Your task to perform on an android device: Go to location settings Image 0: 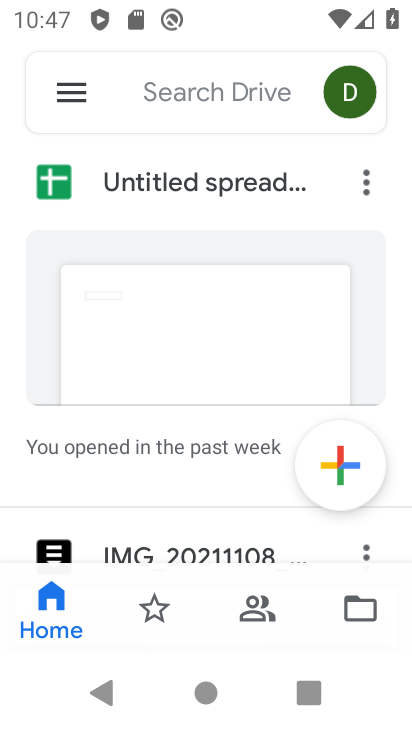
Step 0: press home button
Your task to perform on an android device: Go to location settings Image 1: 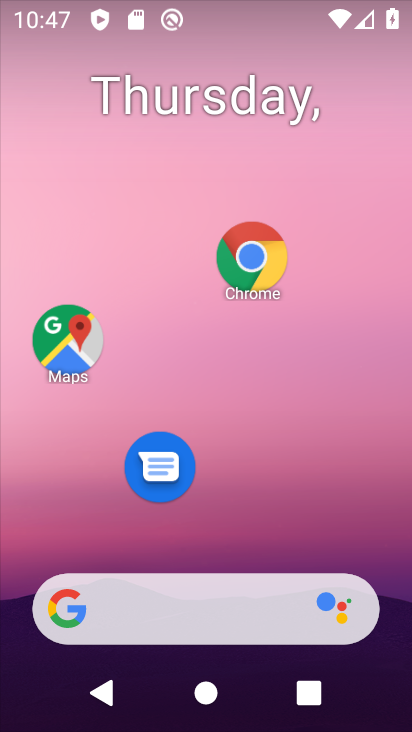
Step 1: drag from (153, 538) to (230, 162)
Your task to perform on an android device: Go to location settings Image 2: 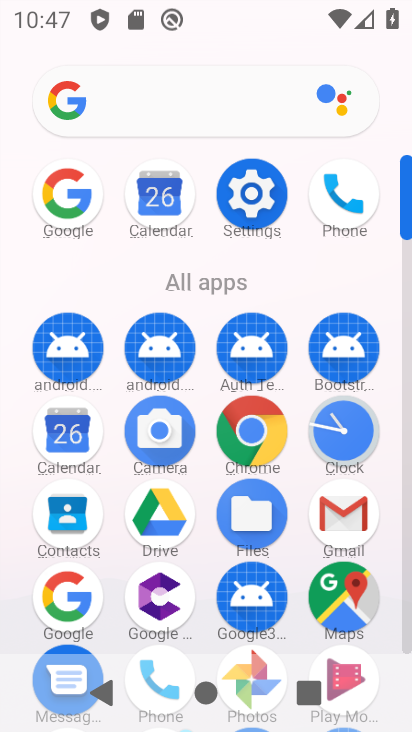
Step 2: click (253, 191)
Your task to perform on an android device: Go to location settings Image 3: 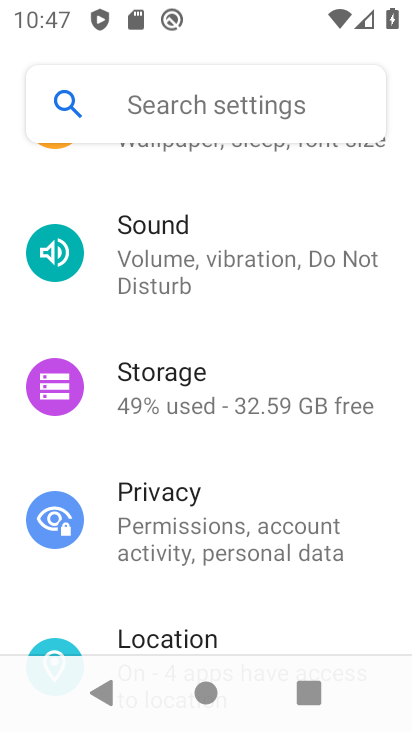
Step 3: drag from (216, 581) to (288, 271)
Your task to perform on an android device: Go to location settings Image 4: 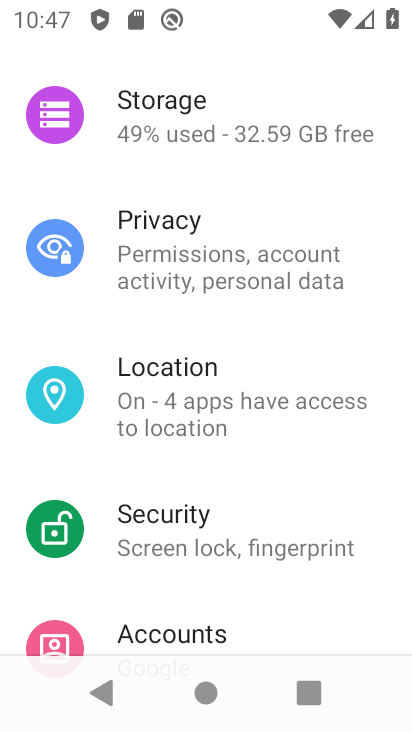
Step 4: click (228, 406)
Your task to perform on an android device: Go to location settings Image 5: 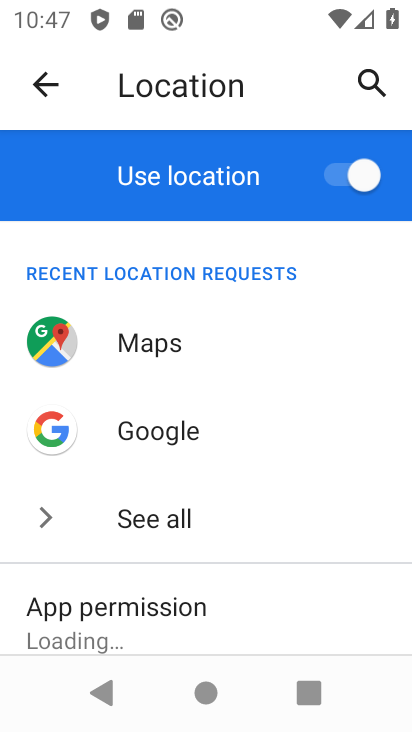
Step 5: task complete